Your task to perform on an android device: Turn on the flashlight Image 0: 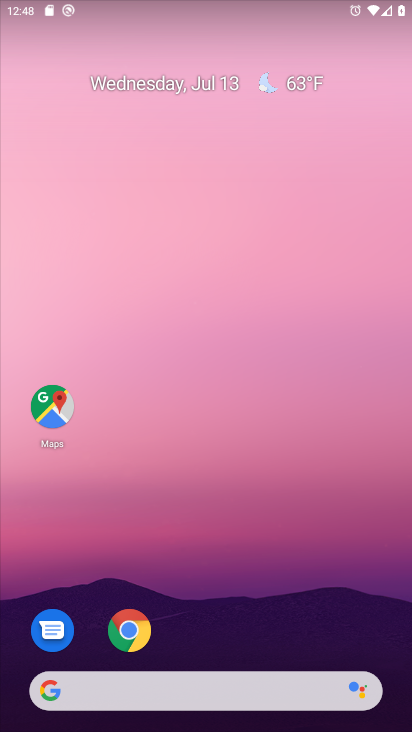
Step 0: drag from (158, 684) to (155, 115)
Your task to perform on an android device: Turn on the flashlight Image 1: 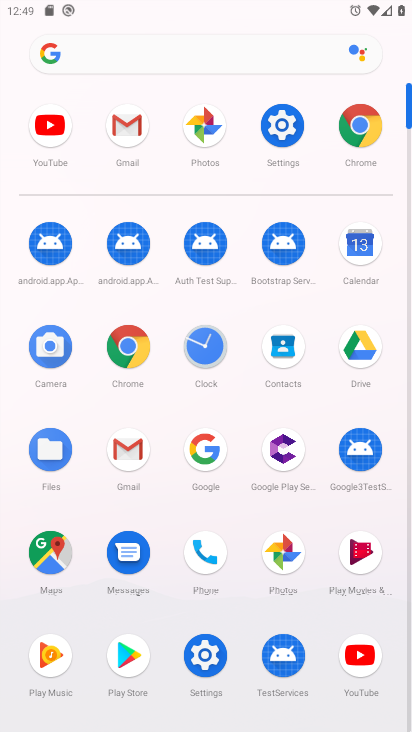
Step 1: task complete